Your task to perform on an android device: Open sound settings Image 0: 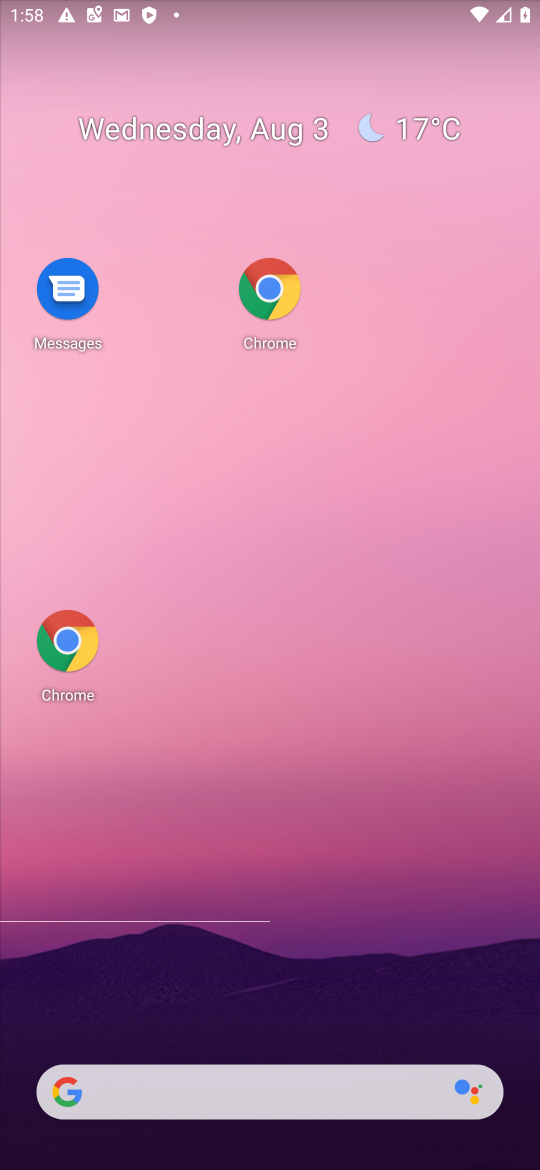
Step 0: drag from (399, 973) to (346, 172)
Your task to perform on an android device: Open sound settings Image 1: 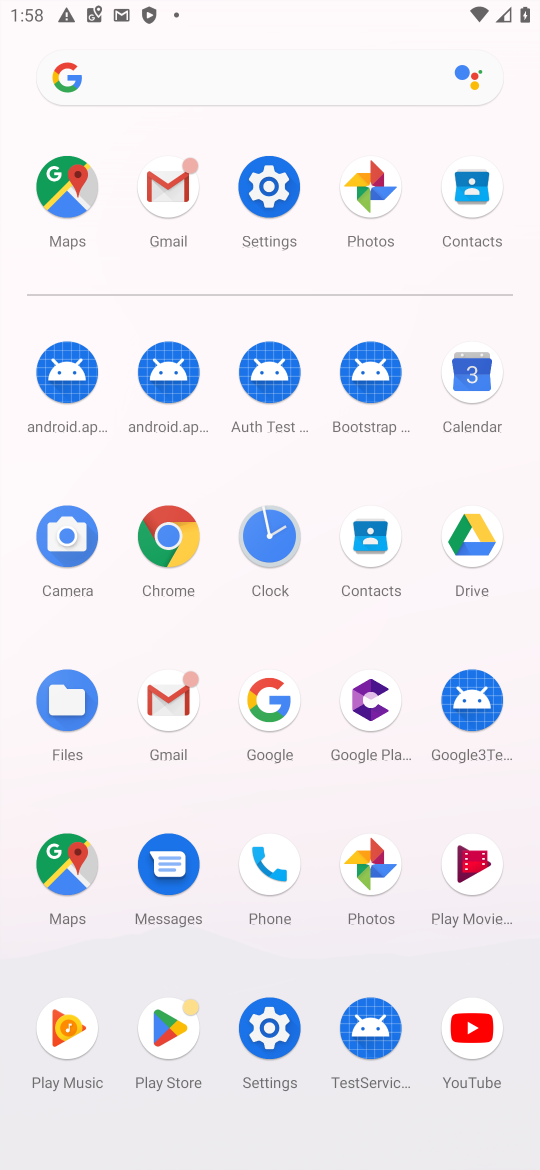
Step 1: click (255, 196)
Your task to perform on an android device: Open sound settings Image 2: 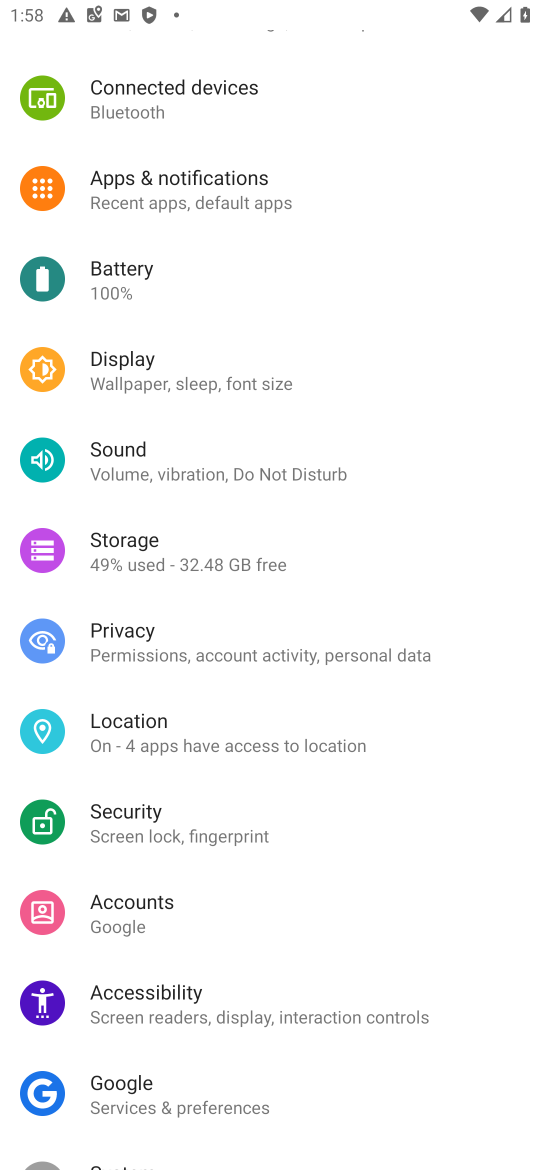
Step 2: click (274, 467)
Your task to perform on an android device: Open sound settings Image 3: 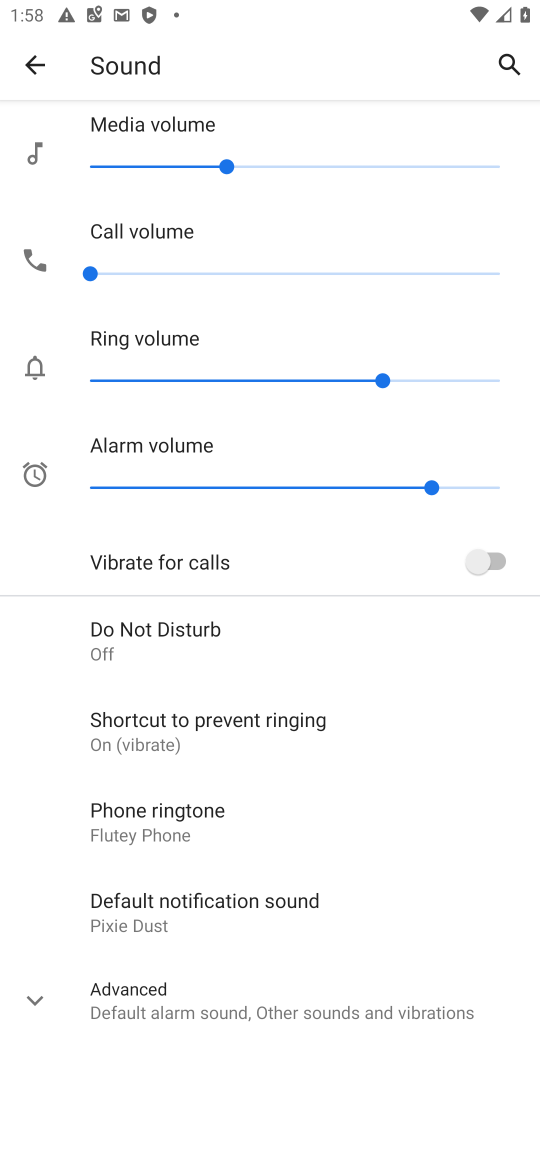
Step 3: task complete